Your task to perform on an android device: Open internet settings Image 0: 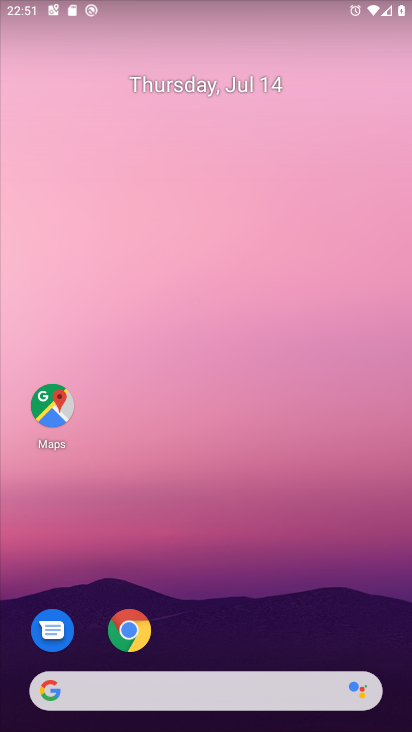
Step 0: drag from (186, 634) to (237, 67)
Your task to perform on an android device: Open internet settings Image 1: 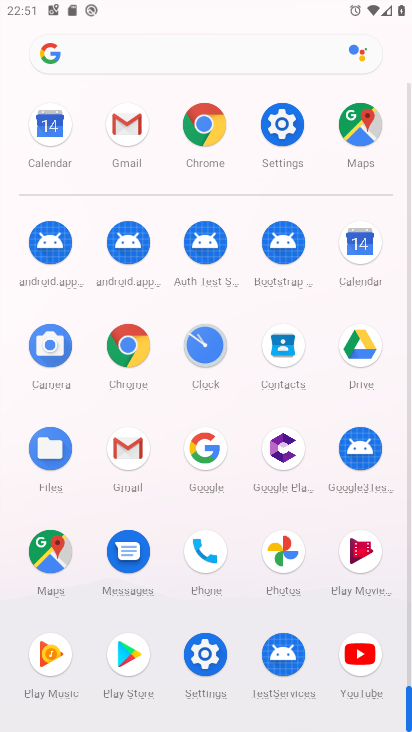
Step 1: click (272, 118)
Your task to perform on an android device: Open internet settings Image 2: 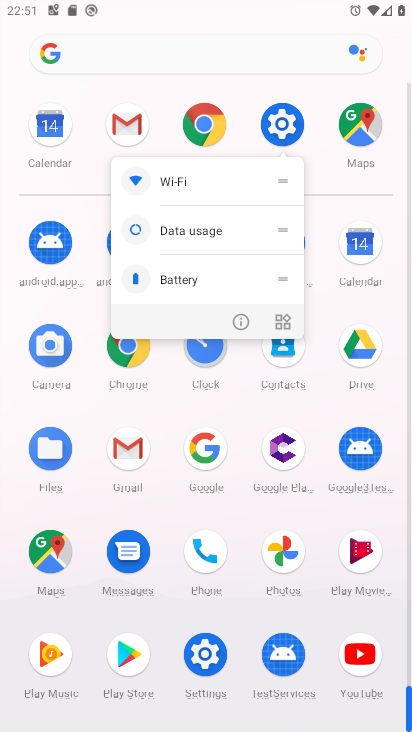
Step 2: click (236, 323)
Your task to perform on an android device: Open internet settings Image 3: 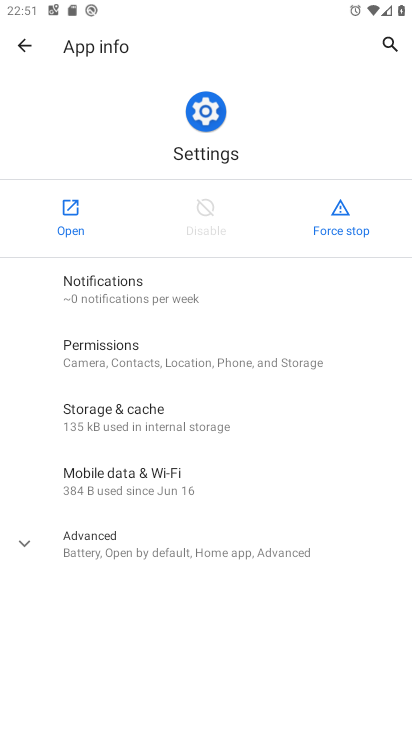
Step 3: click (70, 201)
Your task to perform on an android device: Open internet settings Image 4: 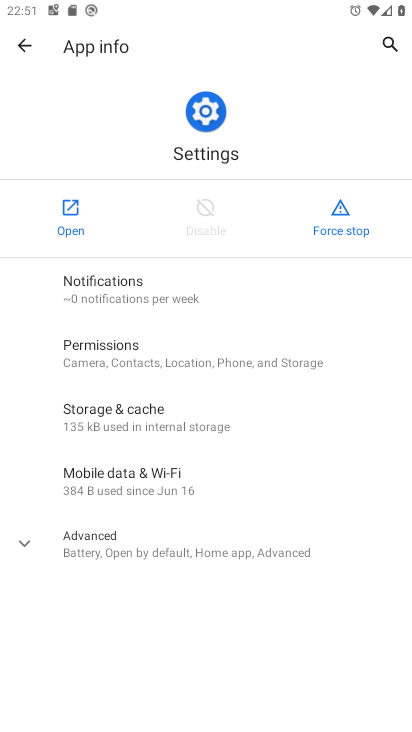
Step 4: click (70, 201)
Your task to perform on an android device: Open internet settings Image 5: 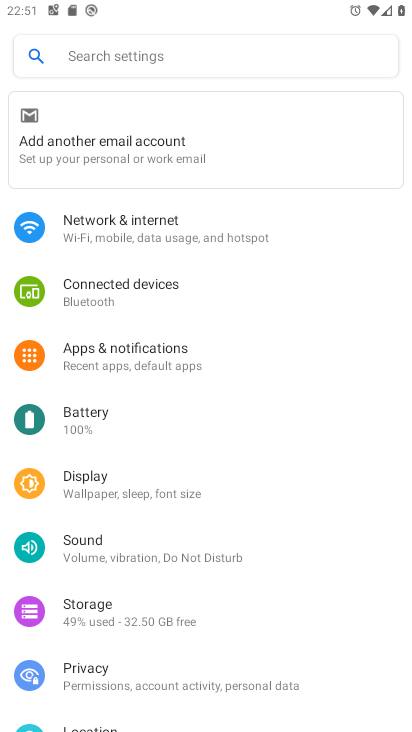
Step 5: click (130, 219)
Your task to perform on an android device: Open internet settings Image 6: 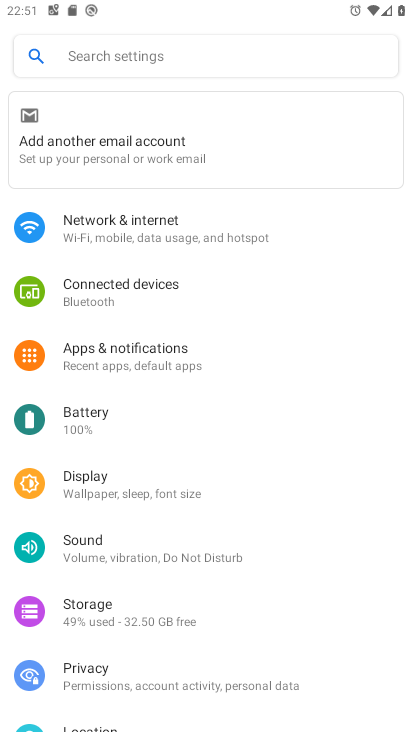
Step 6: click (130, 219)
Your task to perform on an android device: Open internet settings Image 7: 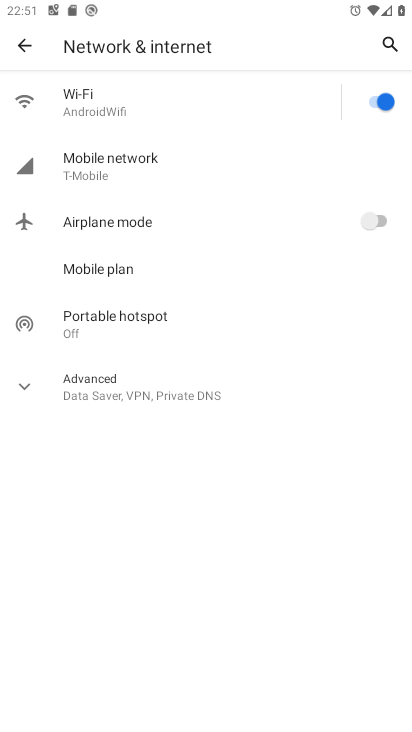
Step 7: task complete